Your task to perform on an android device: turn off javascript in the chrome app Image 0: 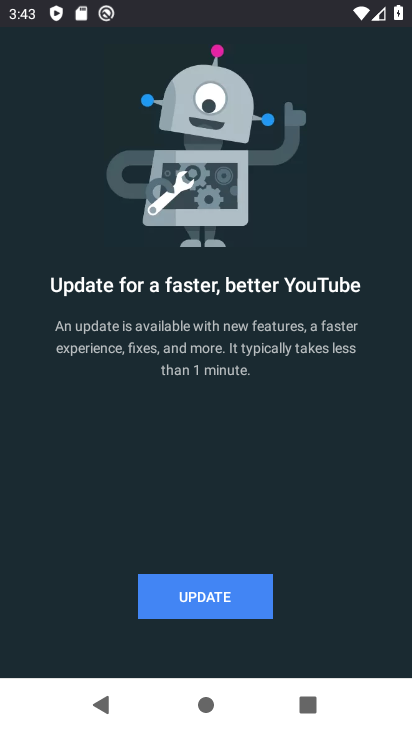
Step 0: press home button
Your task to perform on an android device: turn off javascript in the chrome app Image 1: 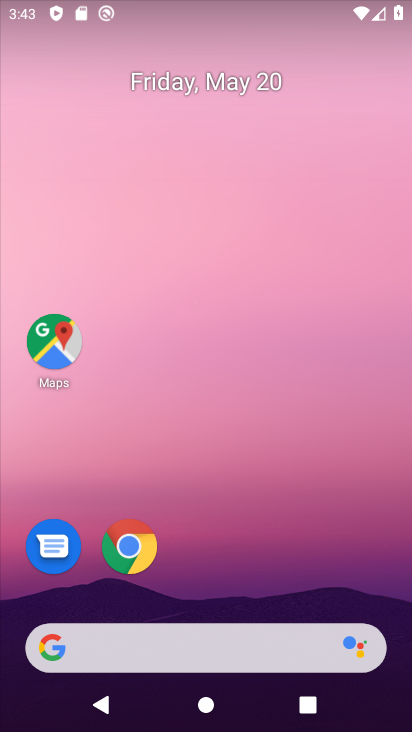
Step 1: click (131, 542)
Your task to perform on an android device: turn off javascript in the chrome app Image 2: 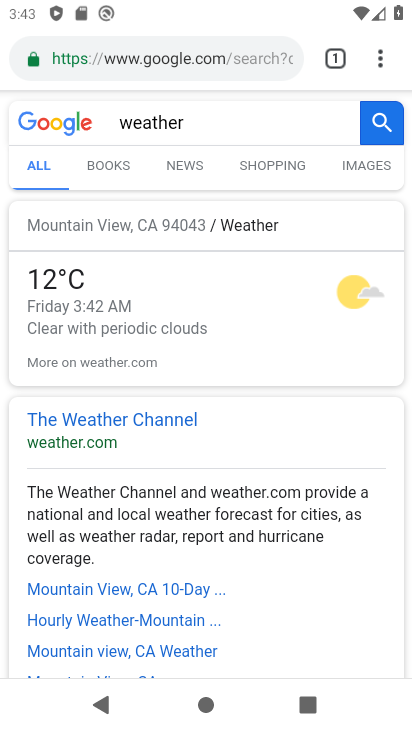
Step 2: drag from (380, 56) to (211, 570)
Your task to perform on an android device: turn off javascript in the chrome app Image 3: 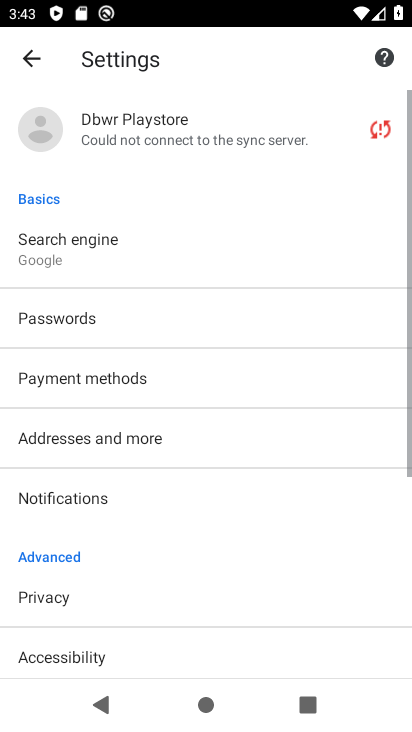
Step 3: drag from (236, 204) to (236, 118)
Your task to perform on an android device: turn off javascript in the chrome app Image 4: 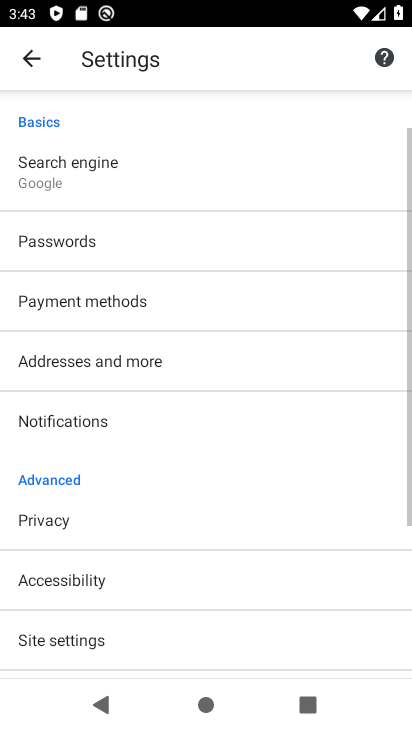
Step 4: drag from (163, 519) to (271, 218)
Your task to perform on an android device: turn off javascript in the chrome app Image 5: 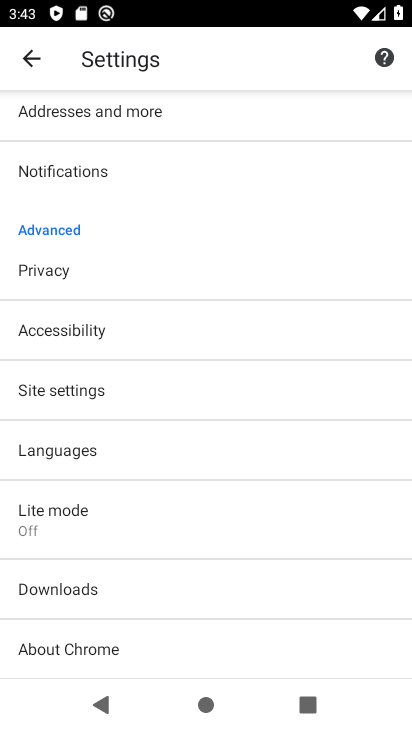
Step 5: click (82, 384)
Your task to perform on an android device: turn off javascript in the chrome app Image 6: 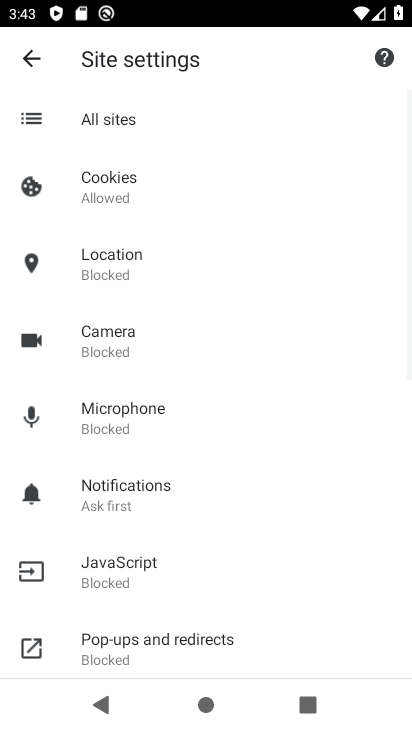
Step 6: drag from (210, 486) to (335, 241)
Your task to perform on an android device: turn off javascript in the chrome app Image 7: 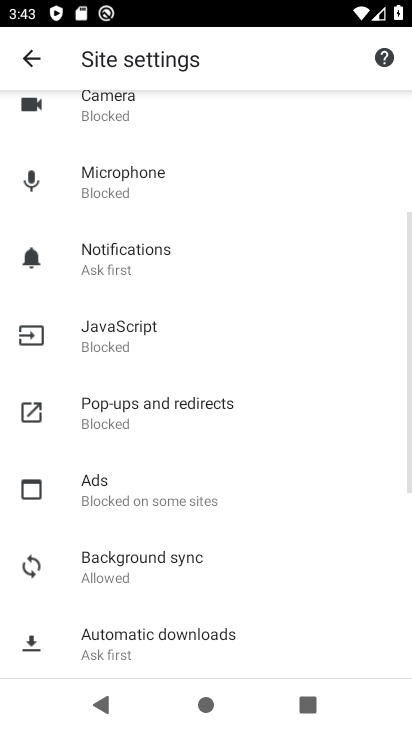
Step 7: click (143, 319)
Your task to perform on an android device: turn off javascript in the chrome app Image 8: 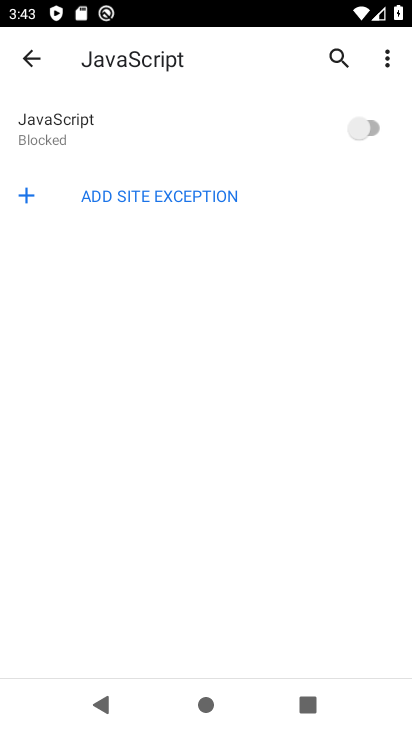
Step 8: task complete